Your task to perform on an android device: install app "Adobe Acrobat Reader: Edit PDF" Image 0: 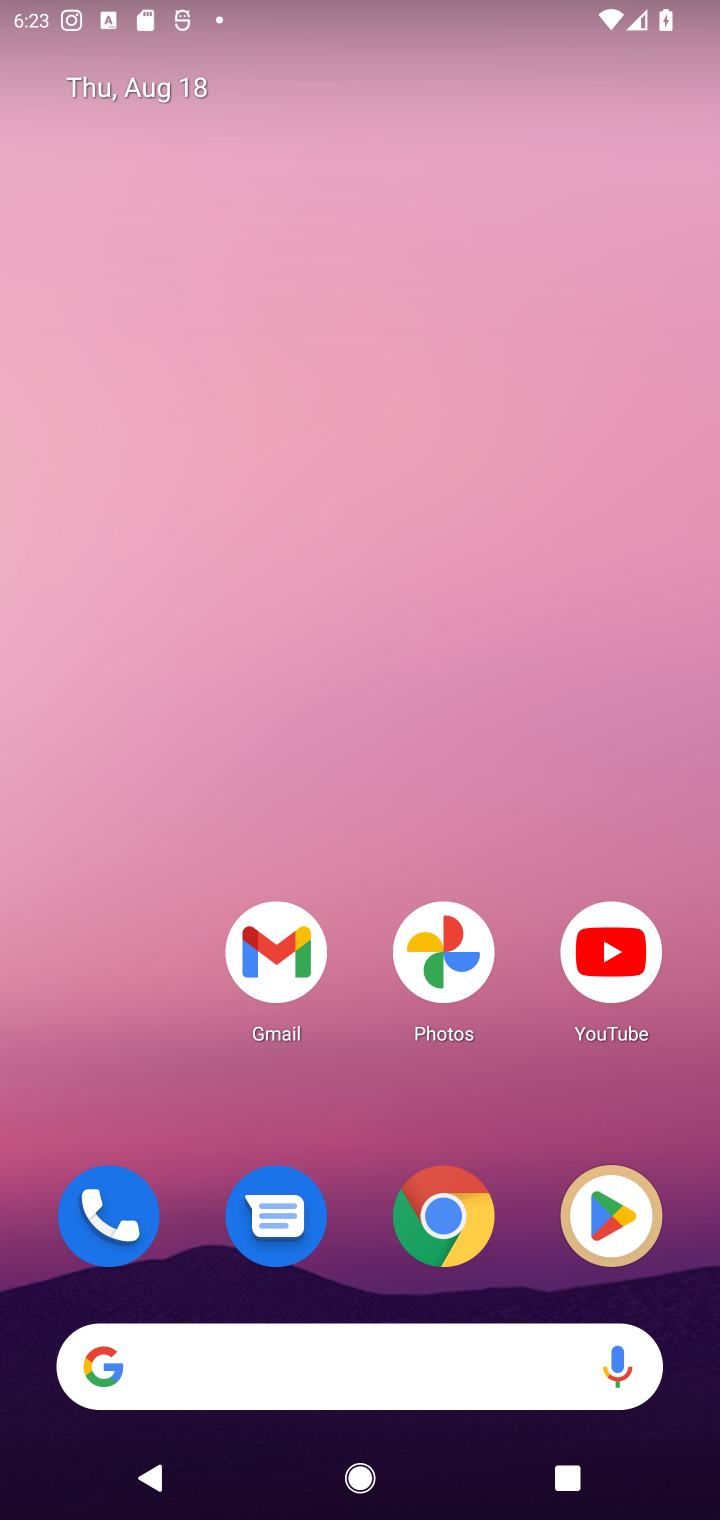
Step 0: click (620, 1228)
Your task to perform on an android device: install app "Adobe Acrobat Reader: Edit PDF" Image 1: 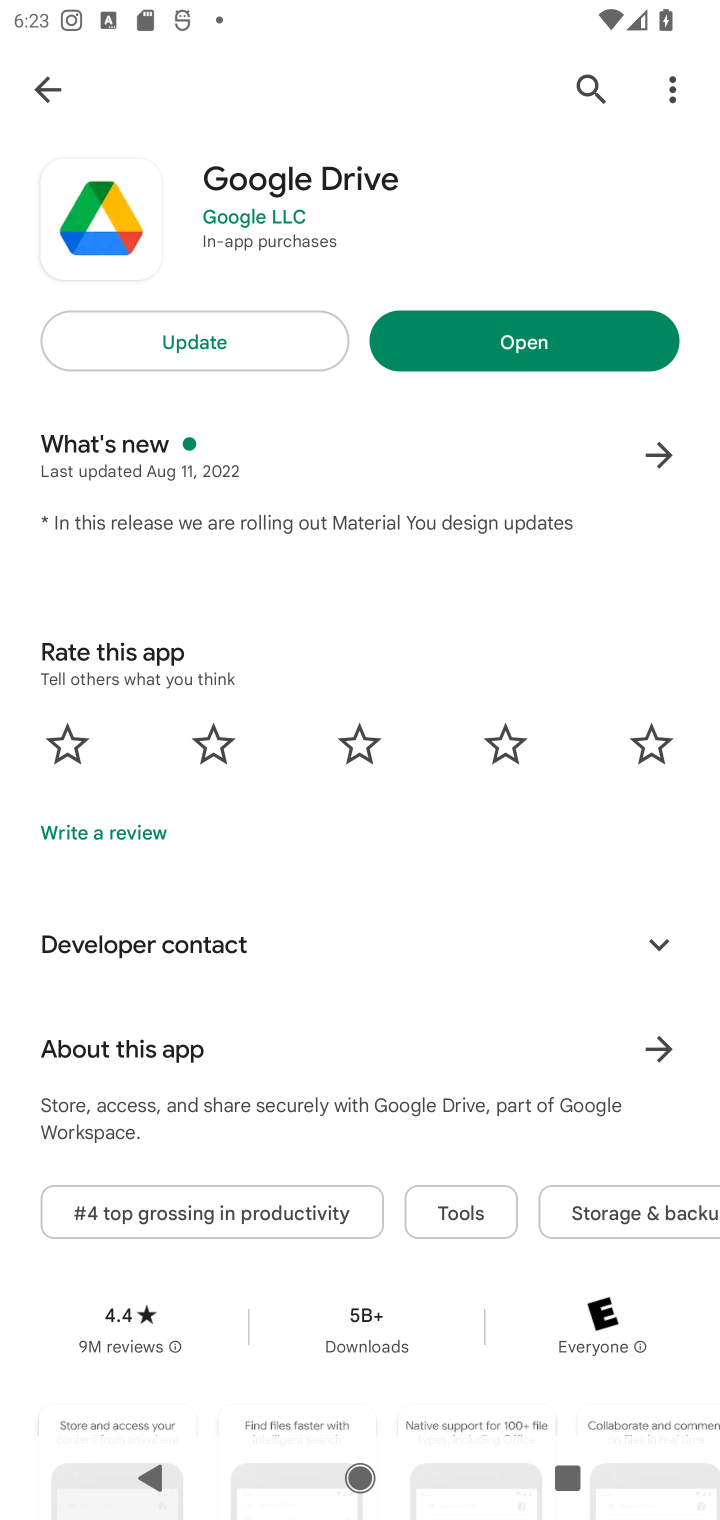
Step 1: click (590, 76)
Your task to perform on an android device: install app "Adobe Acrobat Reader: Edit PDF" Image 2: 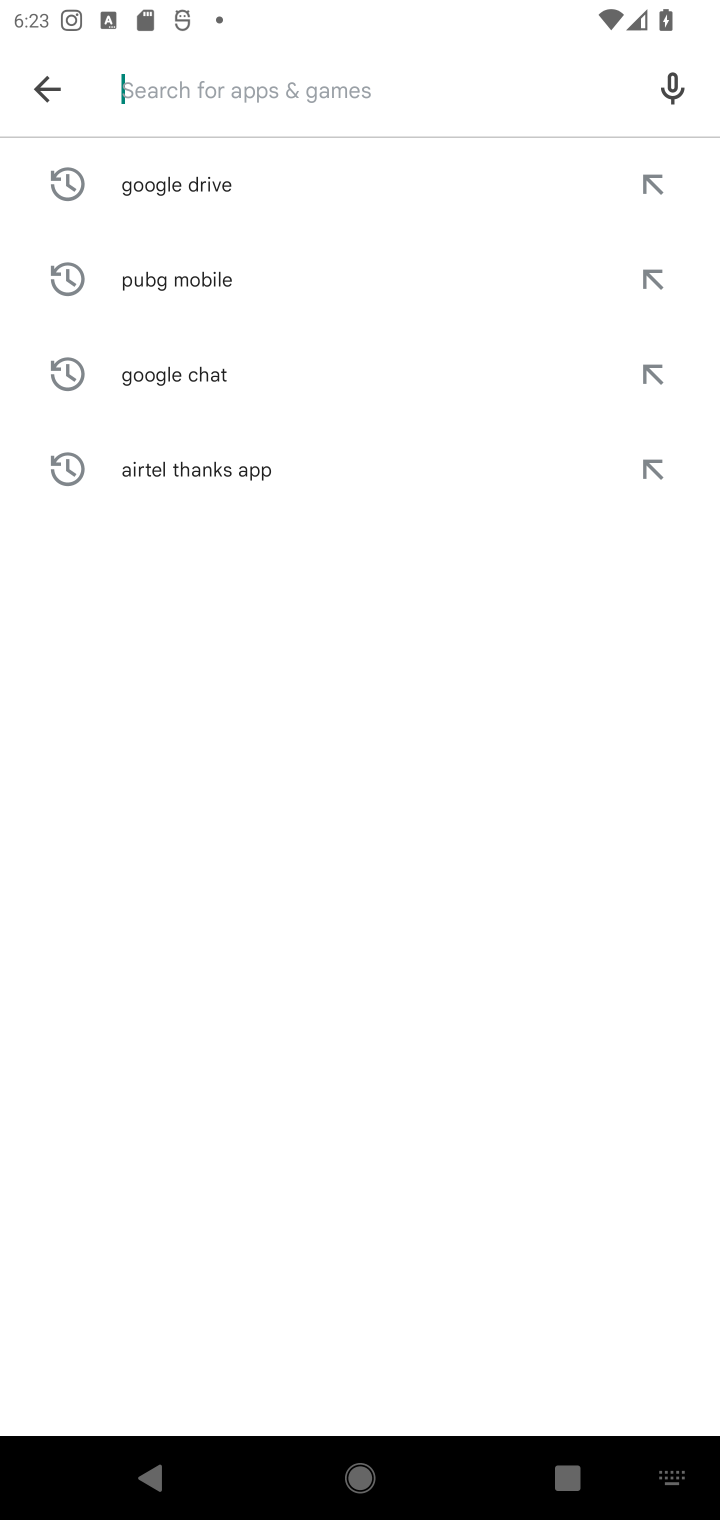
Step 2: type "Adobe Acrobat Reader: Edit PDF"
Your task to perform on an android device: install app "Adobe Acrobat Reader: Edit PDF" Image 3: 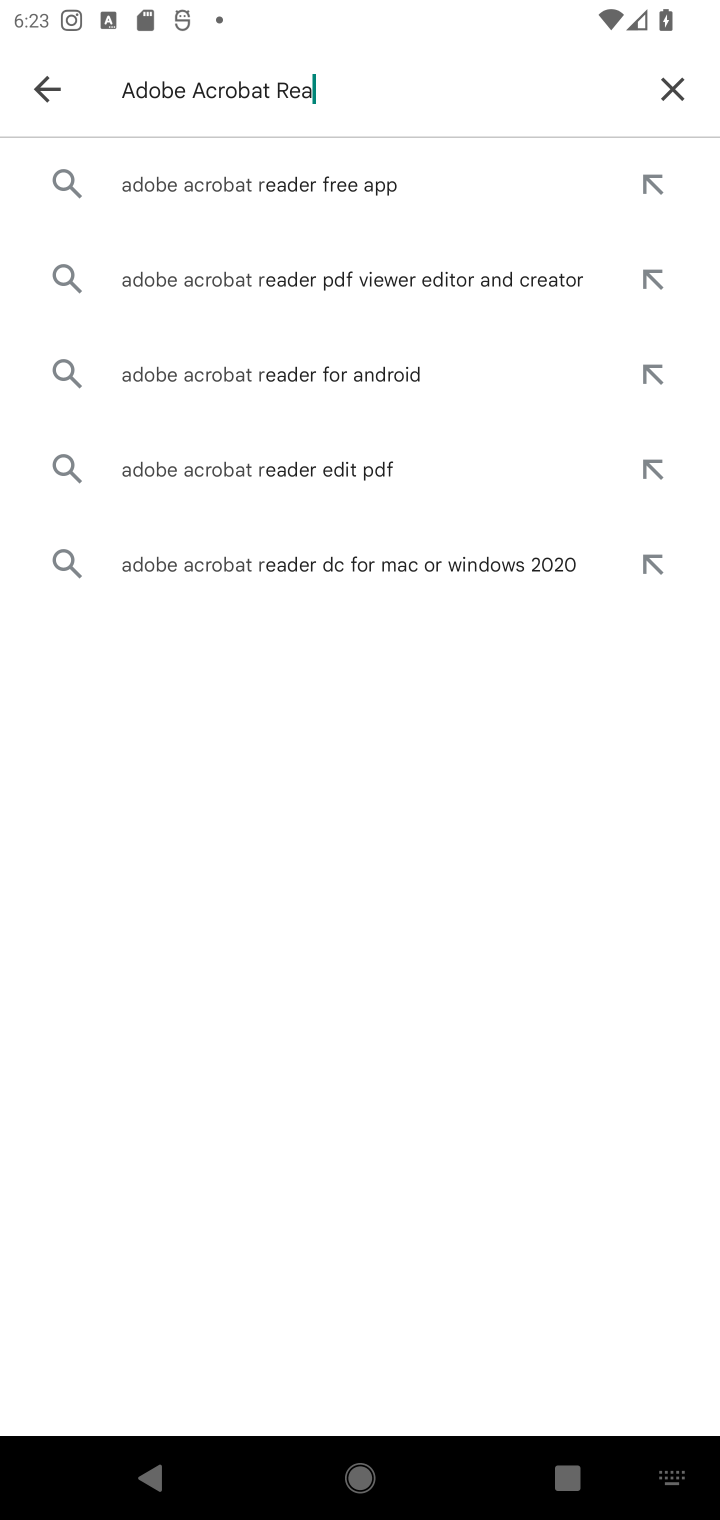
Step 3: type ""
Your task to perform on an android device: install app "Adobe Acrobat Reader: Edit PDF" Image 4: 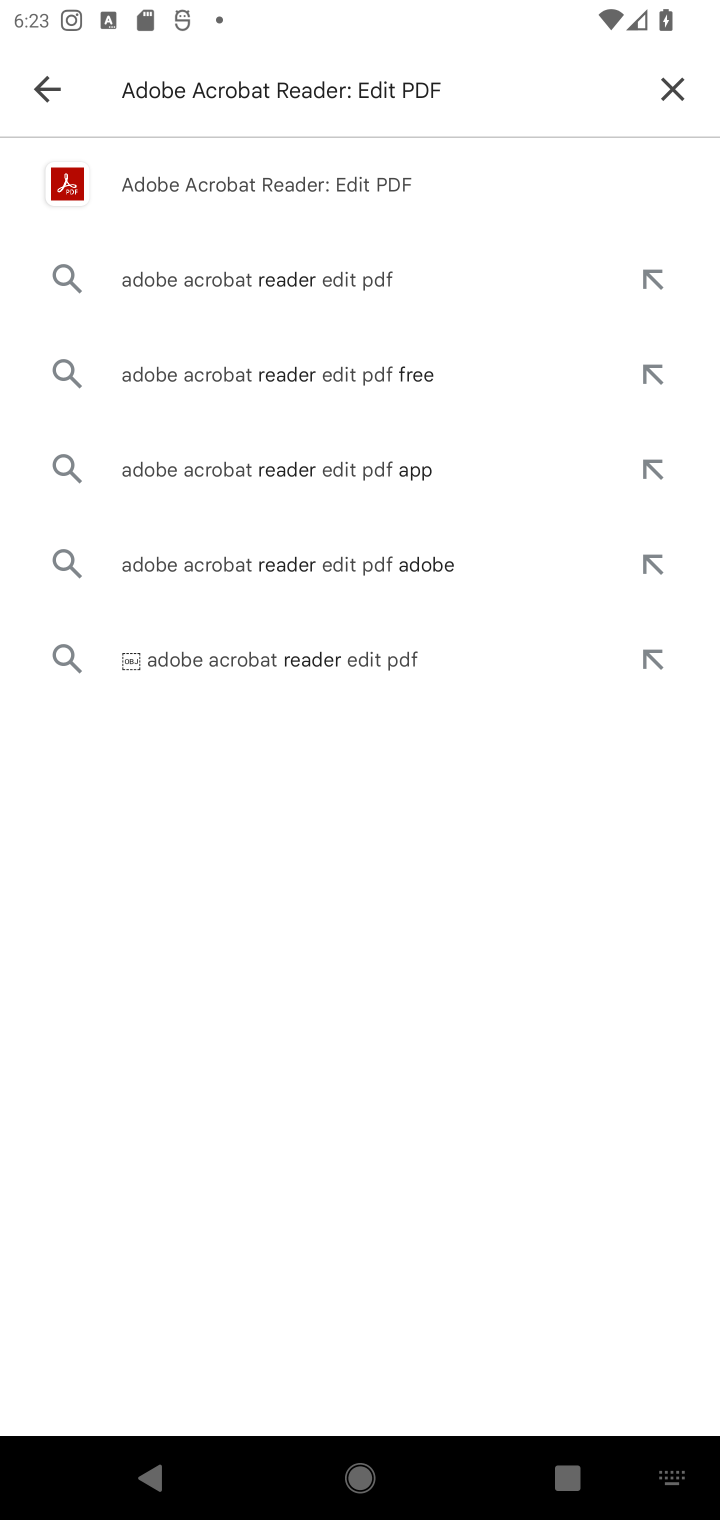
Step 4: click (235, 173)
Your task to perform on an android device: install app "Adobe Acrobat Reader: Edit PDF" Image 5: 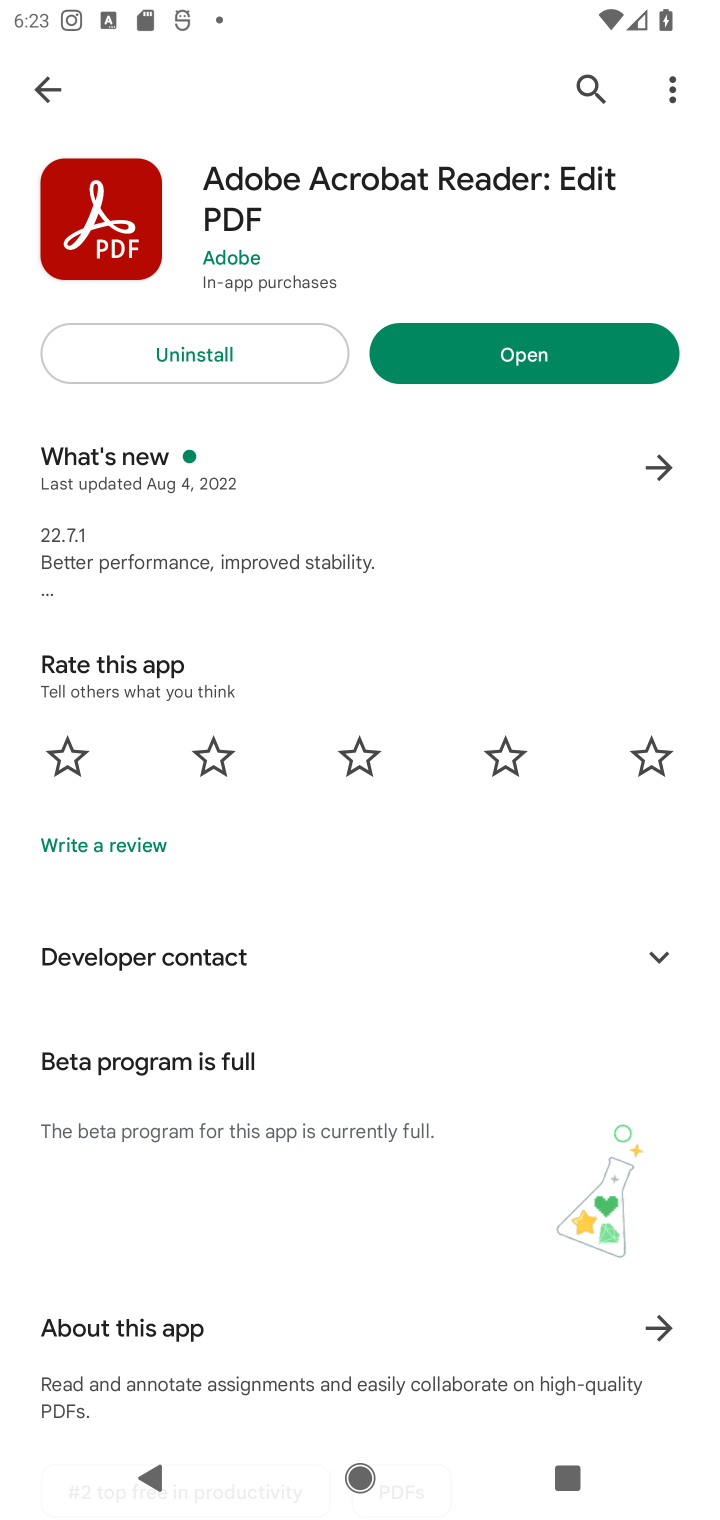
Step 5: task complete